Your task to perform on an android device: install app "McDonald's" Image 0: 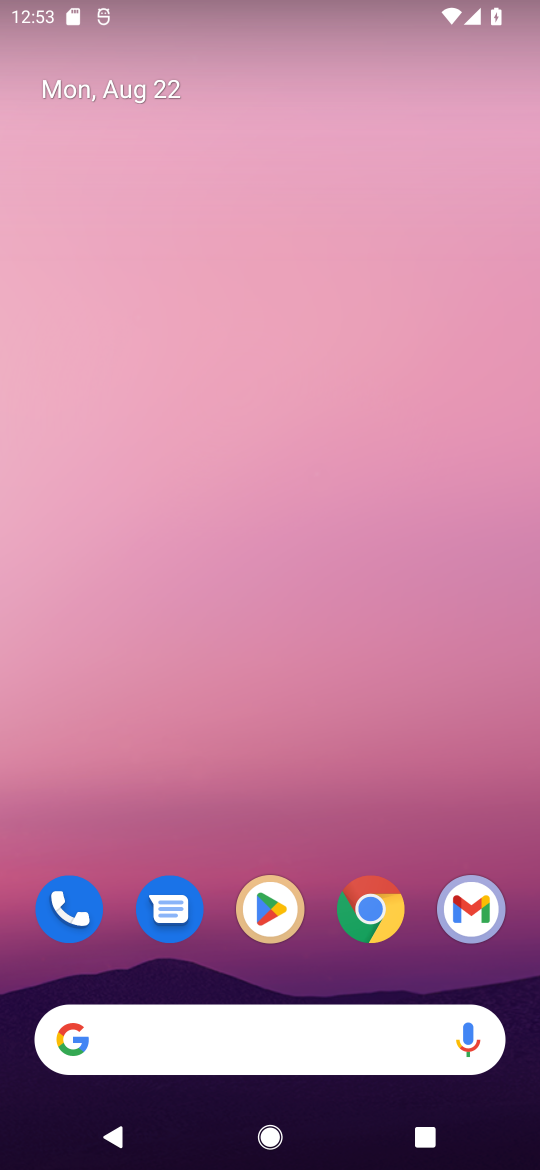
Step 0: click (259, 901)
Your task to perform on an android device: install app "McDonald's" Image 1: 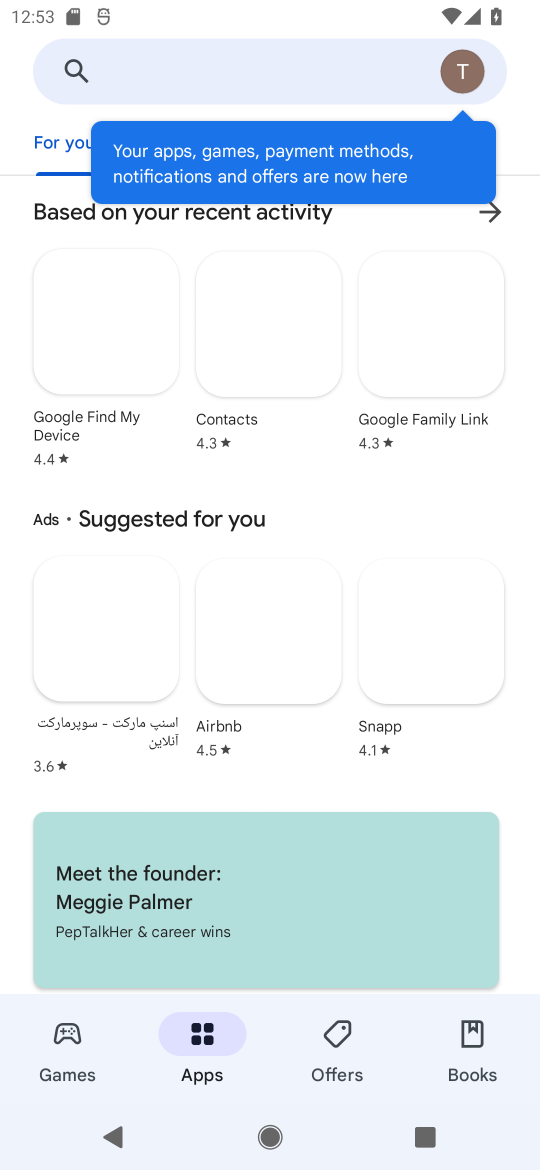
Step 1: click (269, 73)
Your task to perform on an android device: install app "McDonald's" Image 2: 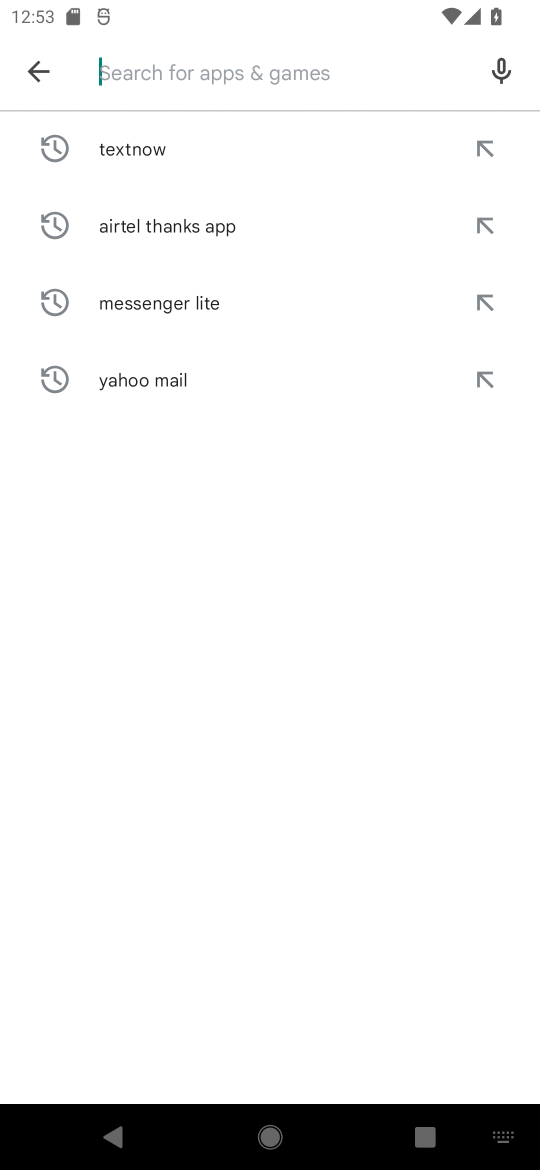
Step 2: click (235, 79)
Your task to perform on an android device: install app "McDonald's" Image 3: 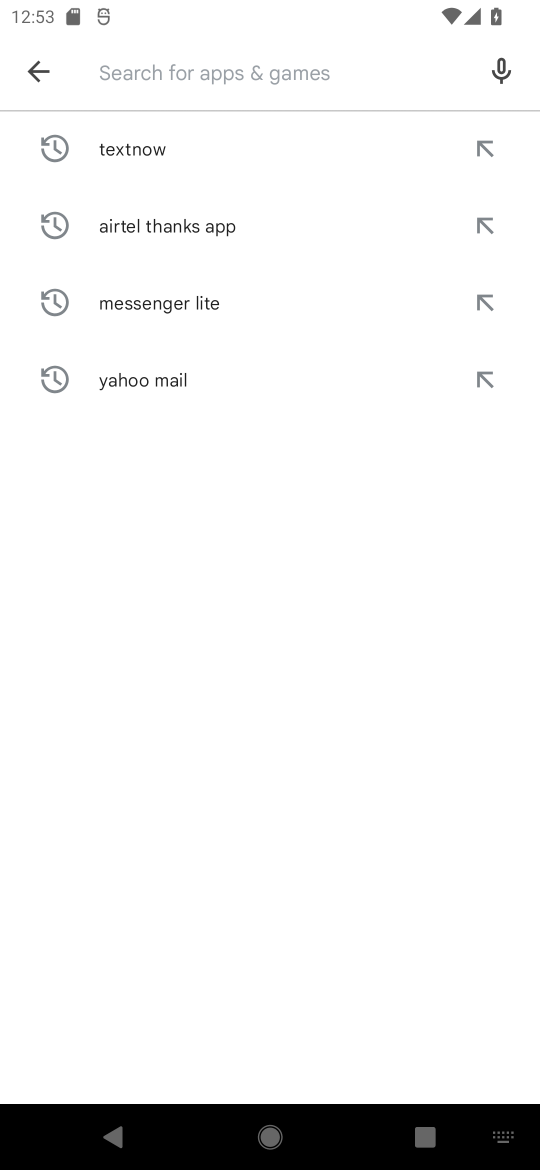
Step 3: type "McDonald's"
Your task to perform on an android device: install app "McDonald's" Image 4: 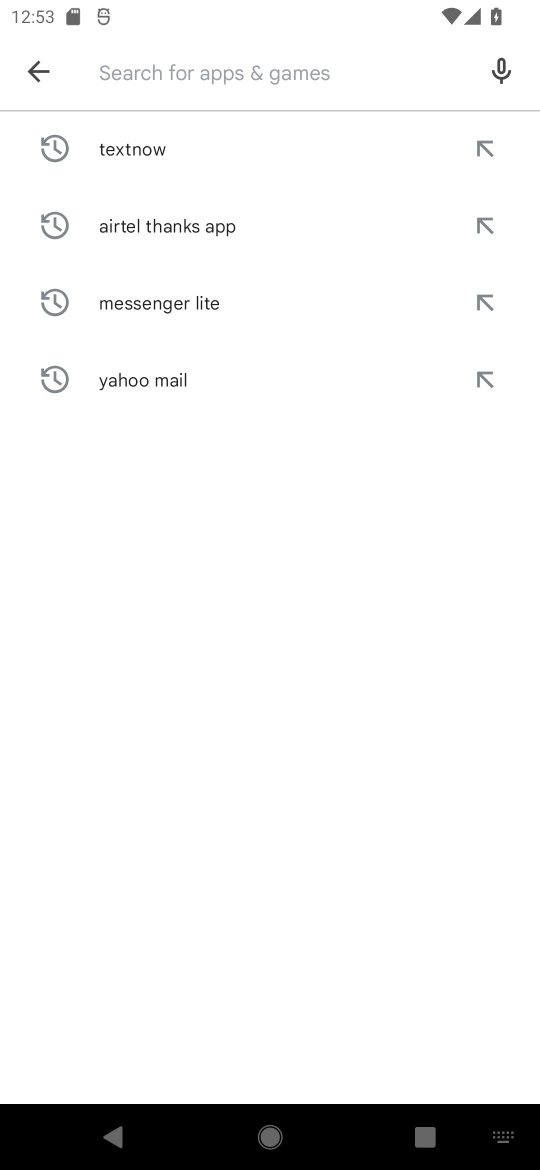
Step 4: click (279, 720)
Your task to perform on an android device: install app "McDonald's" Image 5: 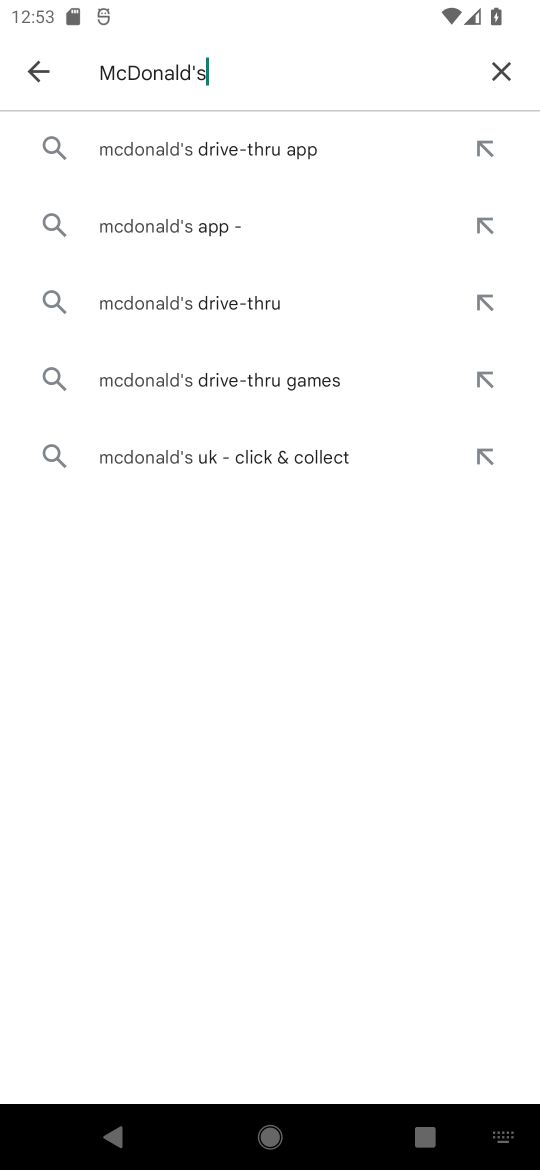
Step 5: click (190, 207)
Your task to perform on an android device: install app "McDonald's" Image 6: 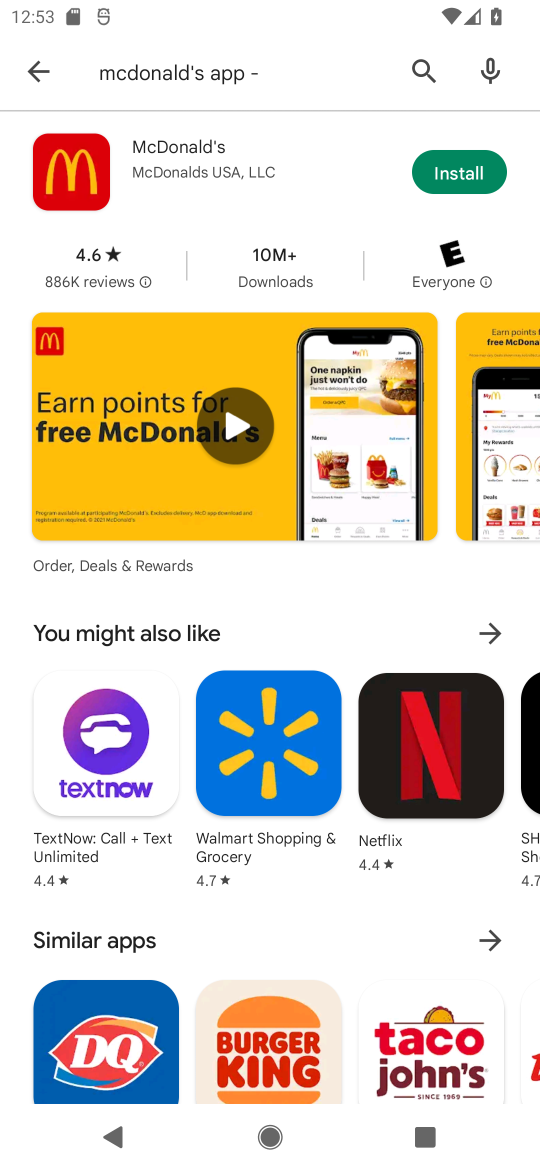
Step 6: click (447, 177)
Your task to perform on an android device: install app "McDonald's" Image 7: 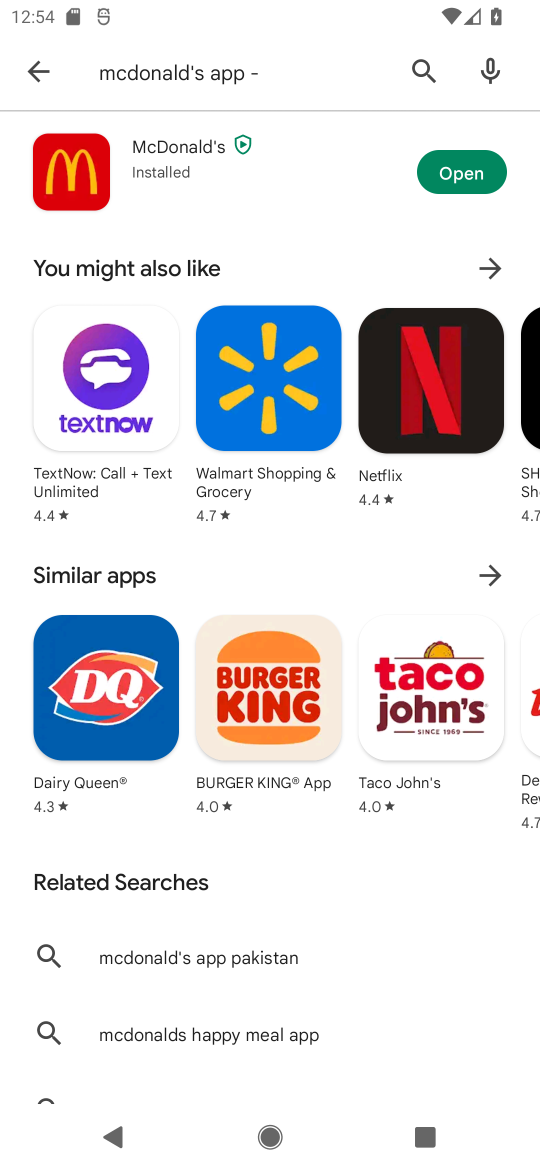
Step 7: task complete